Your task to perform on an android device: Go to network settings Image 0: 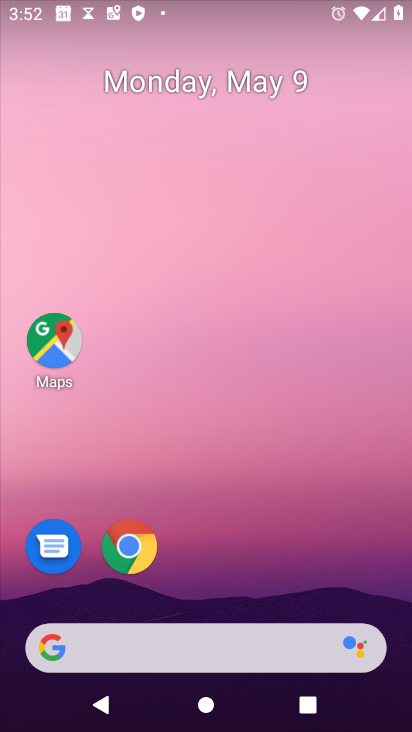
Step 0: drag from (343, 476) to (243, 34)
Your task to perform on an android device: Go to network settings Image 1: 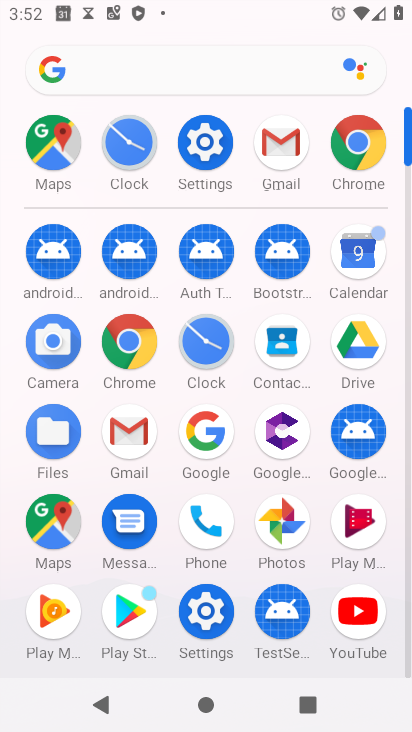
Step 1: click (215, 152)
Your task to perform on an android device: Go to network settings Image 2: 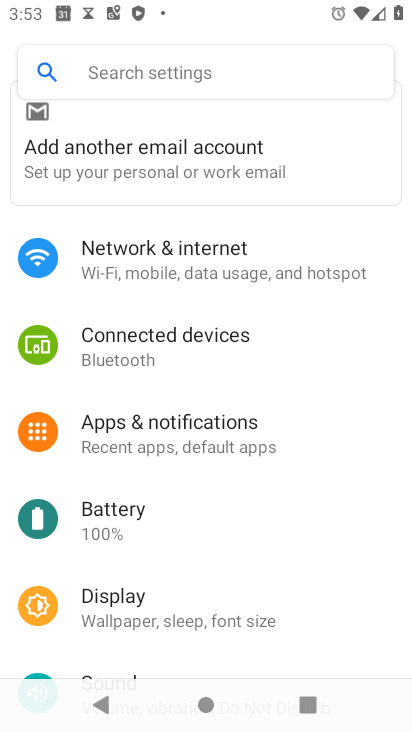
Step 2: click (173, 275)
Your task to perform on an android device: Go to network settings Image 3: 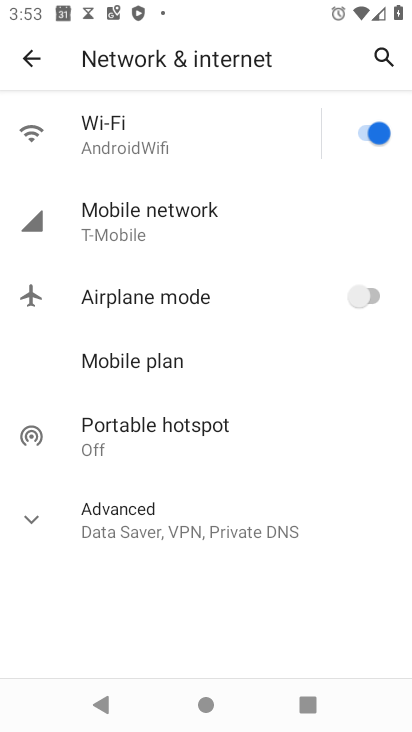
Step 3: click (174, 245)
Your task to perform on an android device: Go to network settings Image 4: 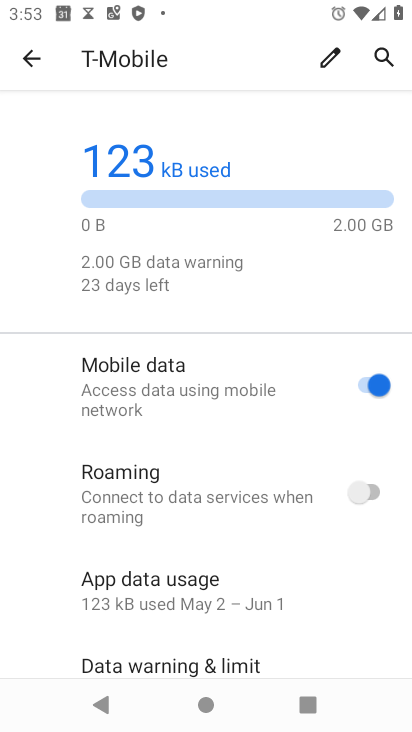
Step 4: task complete